Your task to perform on an android device: delete browsing data in the chrome app Image 0: 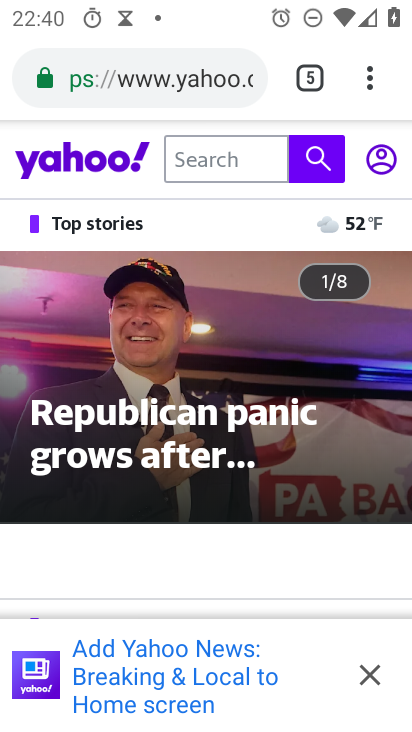
Step 0: press home button
Your task to perform on an android device: delete browsing data in the chrome app Image 1: 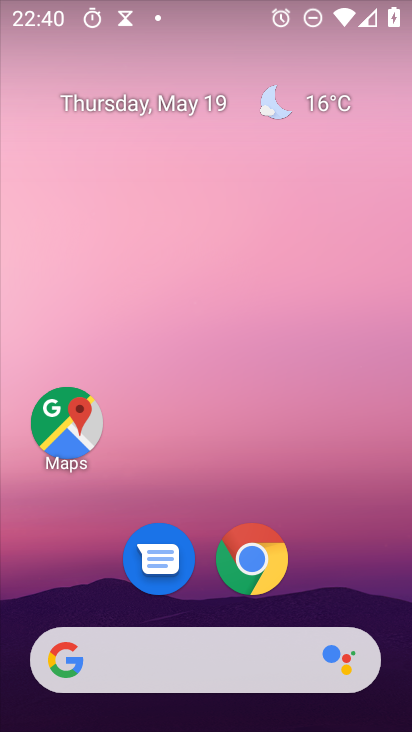
Step 1: click (257, 563)
Your task to perform on an android device: delete browsing data in the chrome app Image 2: 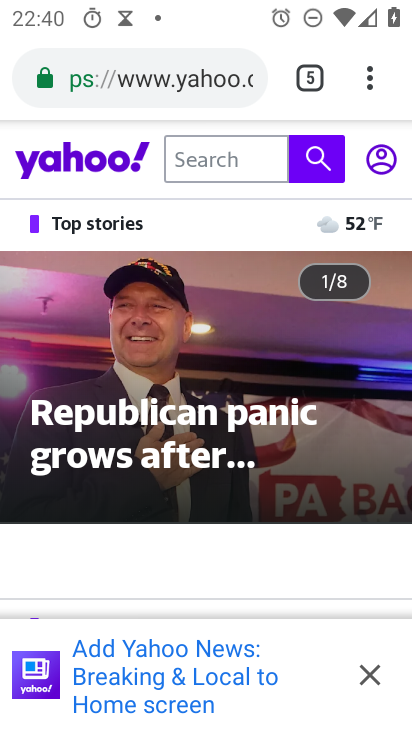
Step 2: click (371, 83)
Your task to perform on an android device: delete browsing data in the chrome app Image 3: 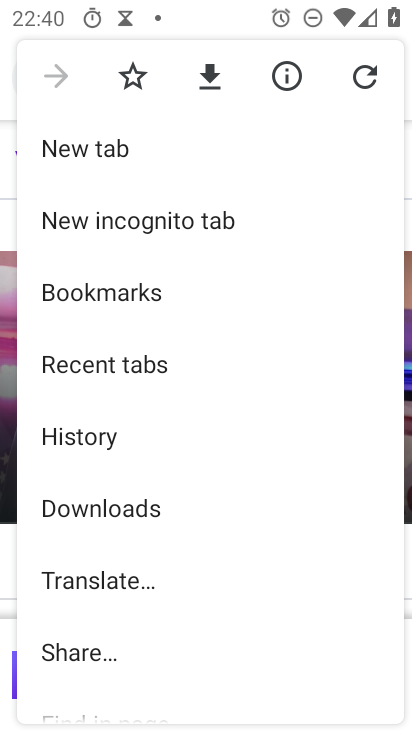
Step 3: drag from (119, 554) to (120, 203)
Your task to perform on an android device: delete browsing data in the chrome app Image 4: 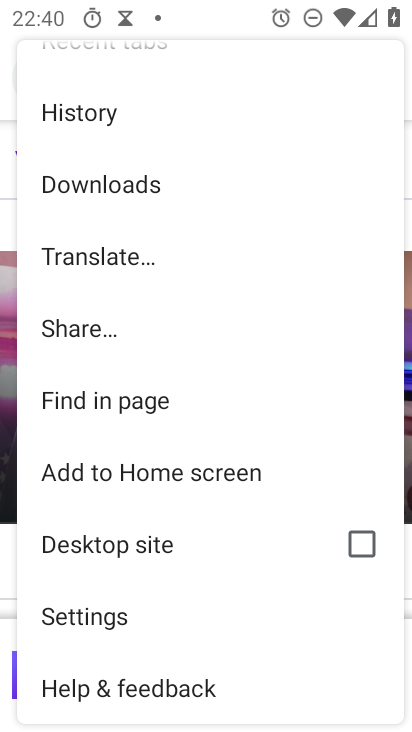
Step 4: click (103, 613)
Your task to perform on an android device: delete browsing data in the chrome app Image 5: 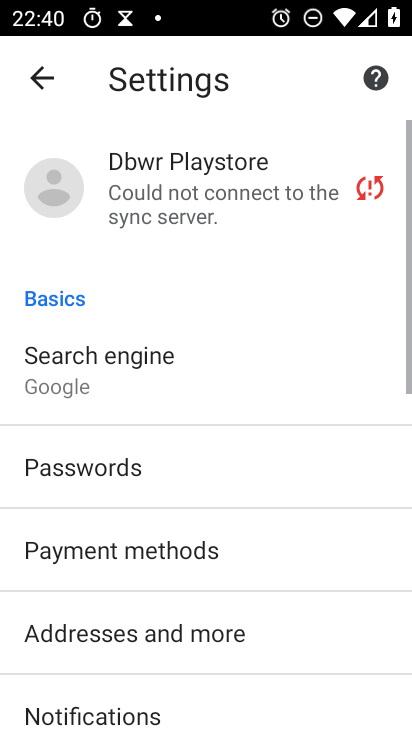
Step 5: drag from (185, 651) to (186, 360)
Your task to perform on an android device: delete browsing data in the chrome app Image 6: 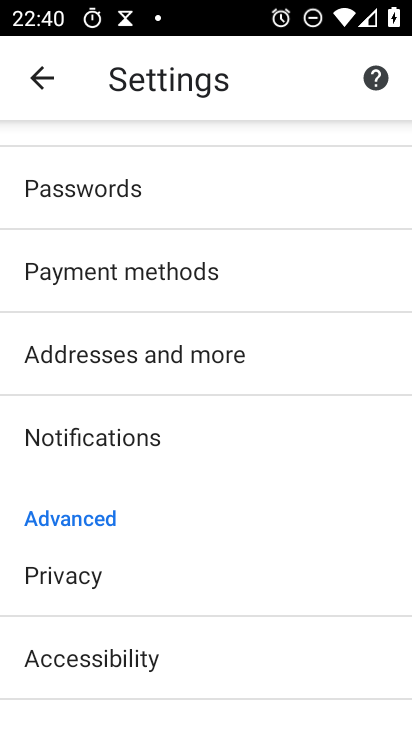
Step 6: drag from (142, 607) to (142, 396)
Your task to perform on an android device: delete browsing data in the chrome app Image 7: 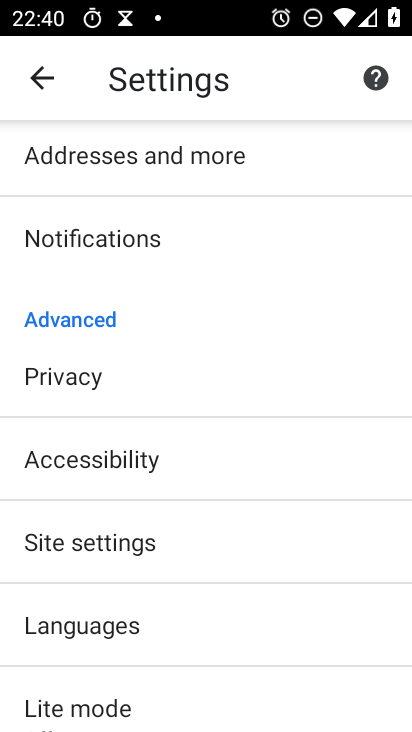
Step 7: click (65, 372)
Your task to perform on an android device: delete browsing data in the chrome app Image 8: 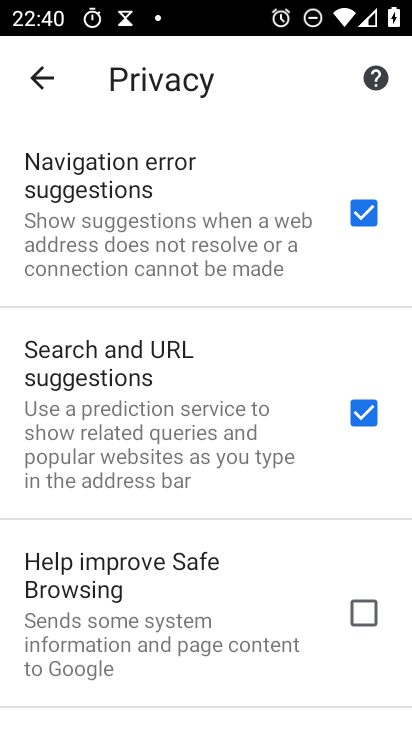
Step 8: drag from (153, 659) to (137, 390)
Your task to perform on an android device: delete browsing data in the chrome app Image 9: 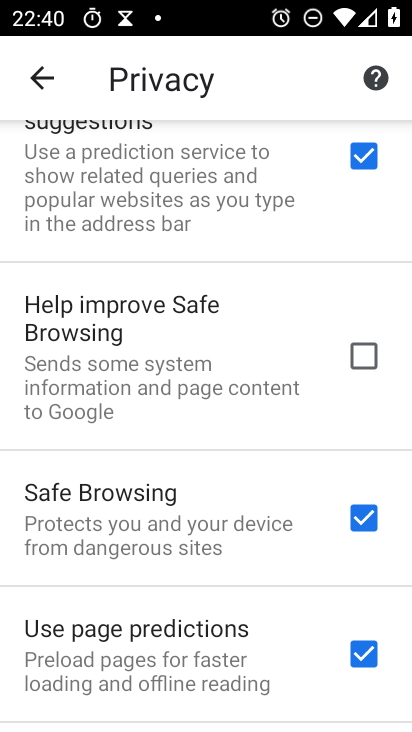
Step 9: drag from (208, 671) to (190, 368)
Your task to perform on an android device: delete browsing data in the chrome app Image 10: 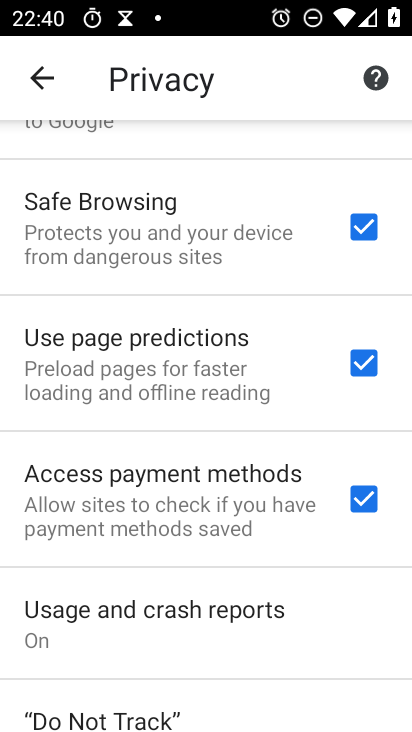
Step 10: drag from (217, 672) to (195, 310)
Your task to perform on an android device: delete browsing data in the chrome app Image 11: 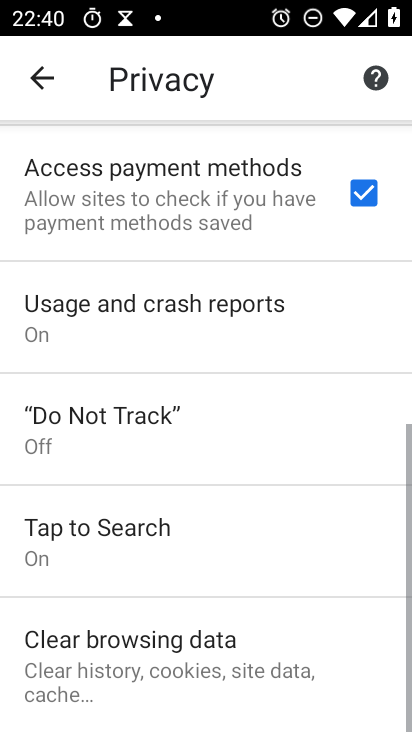
Step 11: click (171, 655)
Your task to perform on an android device: delete browsing data in the chrome app Image 12: 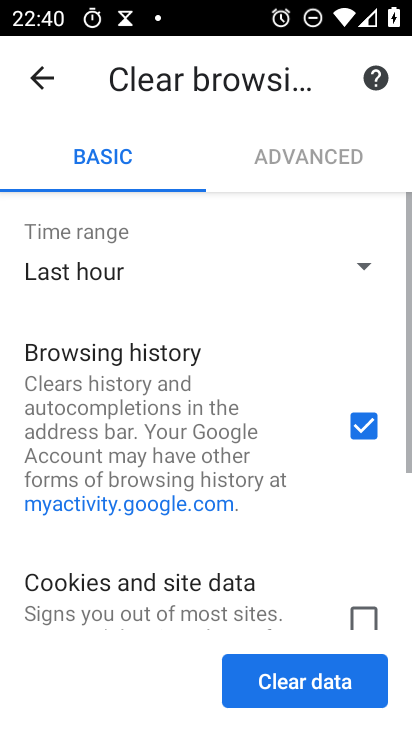
Step 12: drag from (248, 542) to (232, 431)
Your task to perform on an android device: delete browsing data in the chrome app Image 13: 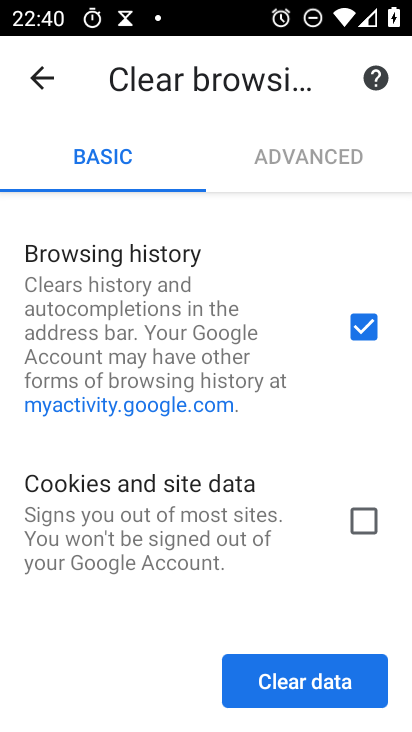
Step 13: drag from (254, 553) to (254, 351)
Your task to perform on an android device: delete browsing data in the chrome app Image 14: 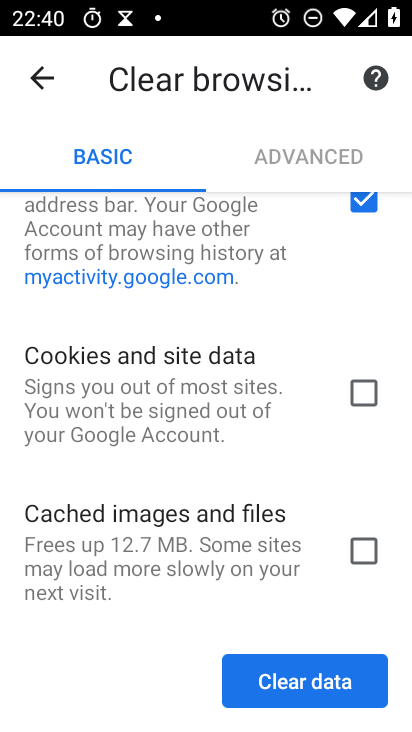
Step 14: click (301, 679)
Your task to perform on an android device: delete browsing data in the chrome app Image 15: 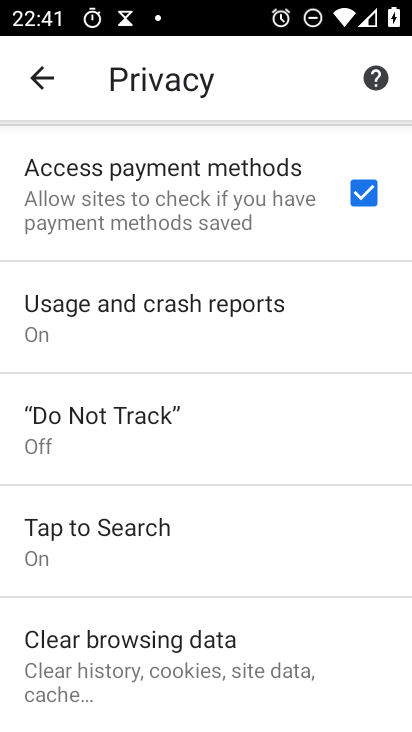
Step 15: task complete